Your task to perform on an android device: turn on javascript in the chrome app Image 0: 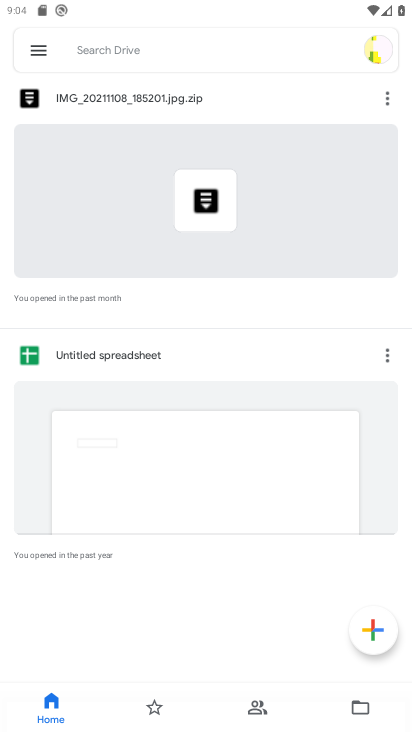
Step 0: press home button
Your task to perform on an android device: turn on javascript in the chrome app Image 1: 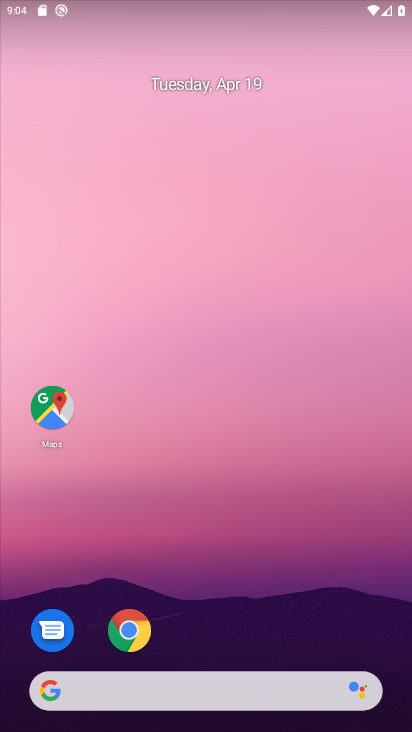
Step 1: click (144, 641)
Your task to perform on an android device: turn on javascript in the chrome app Image 2: 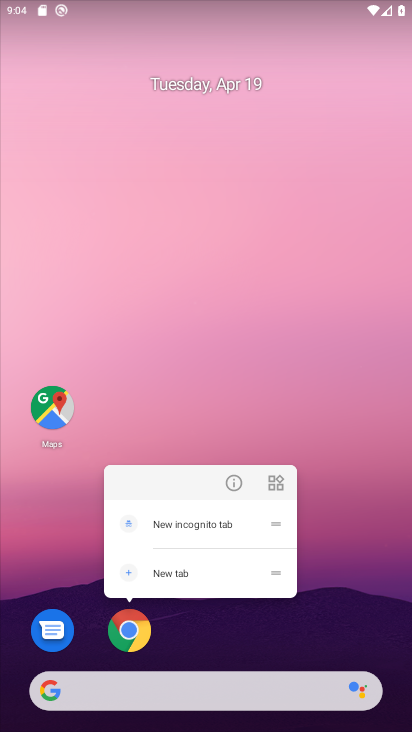
Step 2: click (135, 632)
Your task to perform on an android device: turn on javascript in the chrome app Image 3: 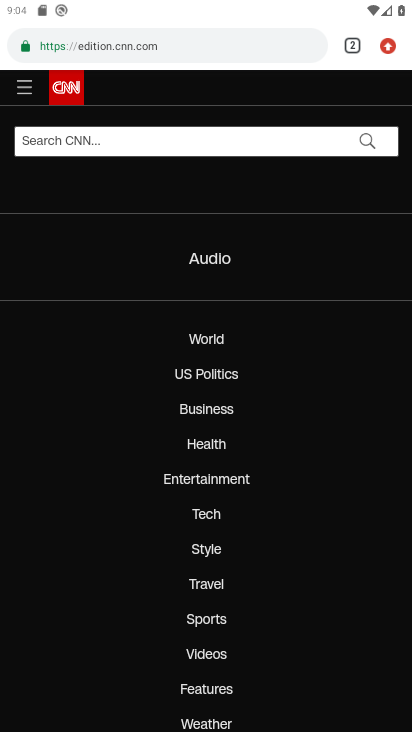
Step 3: click (391, 54)
Your task to perform on an android device: turn on javascript in the chrome app Image 4: 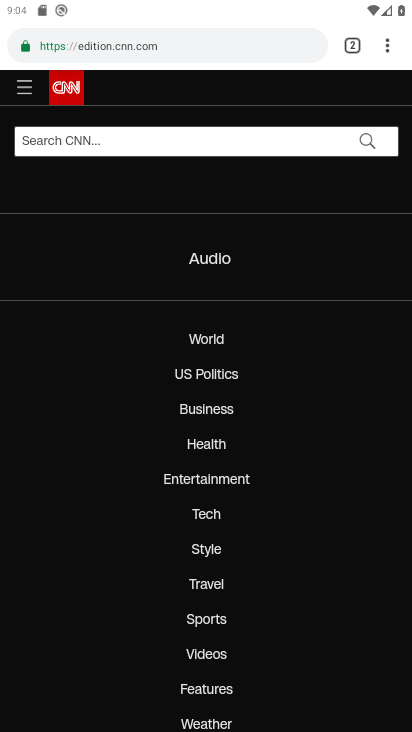
Step 4: click (384, 54)
Your task to perform on an android device: turn on javascript in the chrome app Image 5: 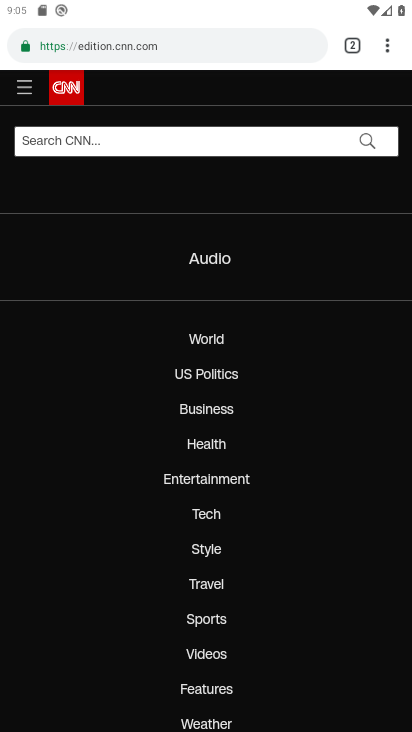
Step 5: click (384, 61)
Your task to perform on an android device: turn on javascript in the chrome app Image 6: 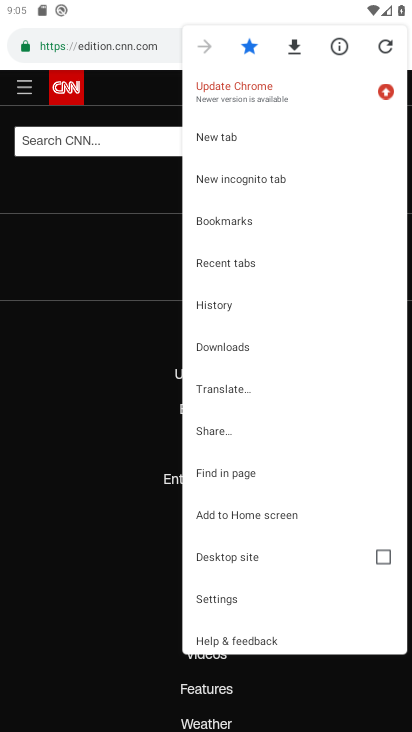
Step 6: click (256, 596)
Your task to perform on an android device: turn on javascript in the chrome app Image 7: 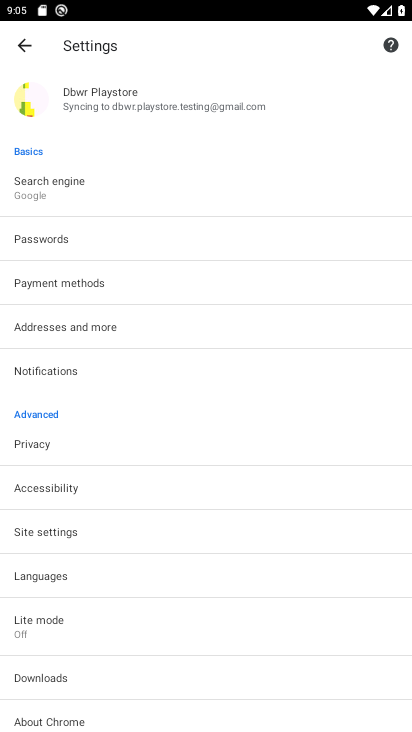
Step 7: click (80, 541)
Your task to perform on an android device: turn on javascript in the chrome app Image 8: 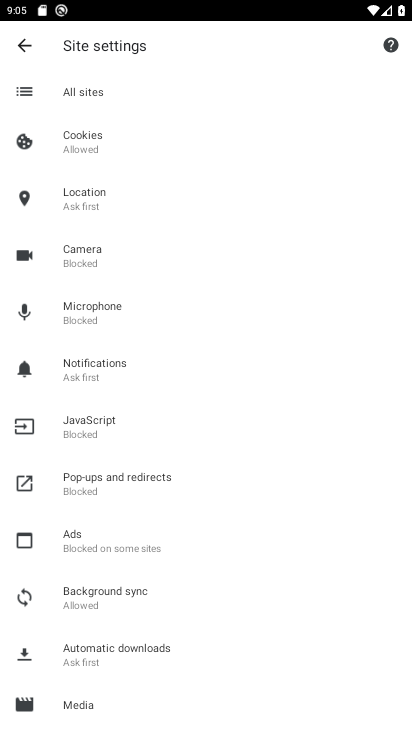
Step 8: click (137, 435)
Your task to perform on an android device: turn on javascript in the chrome app Image 9: 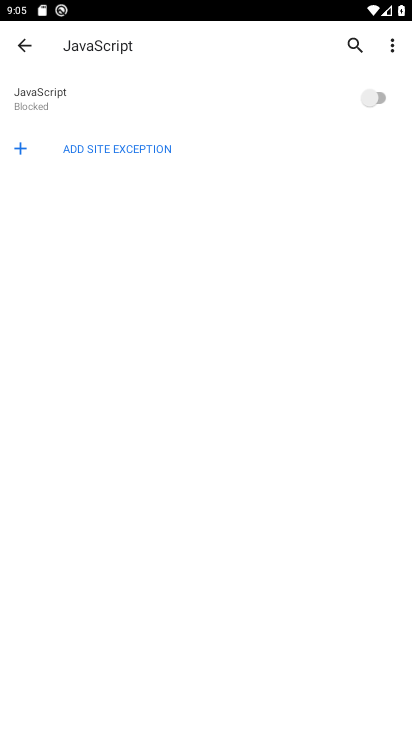
Step 9: click (381, 103)
Your task to perform on an android device: turn on javascript in the chrome app Image 10: 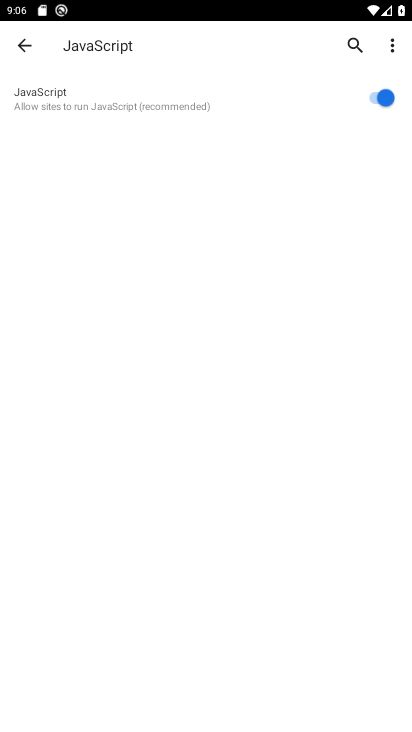
Step 10: task complete